Your task to perform on an android device: turn notification dots off Image 0: 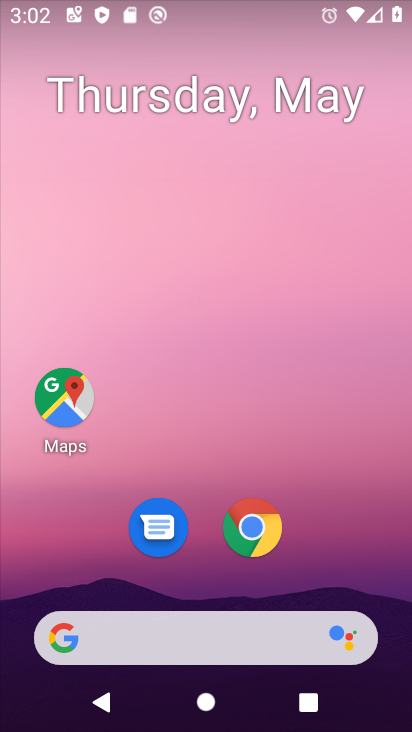
Step 0: drag from (113, 607) to (244, 111)
Your task to perform on an android device: turn notification dots off Image 1: 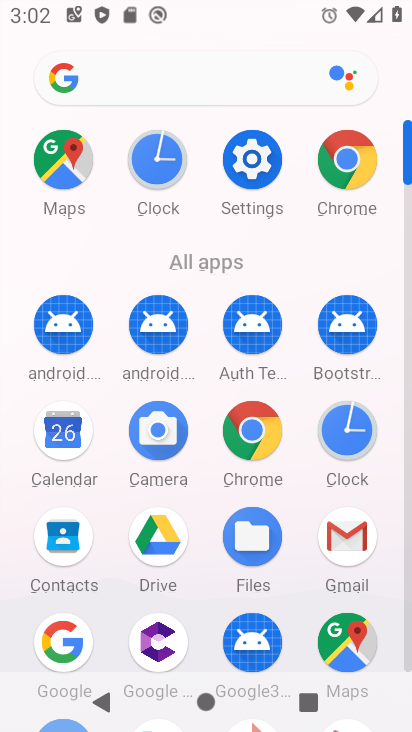
Step 1: drag from (132, 638) to (227, 302)
Your task to perform on an android device: turn notification dots off Image 2: 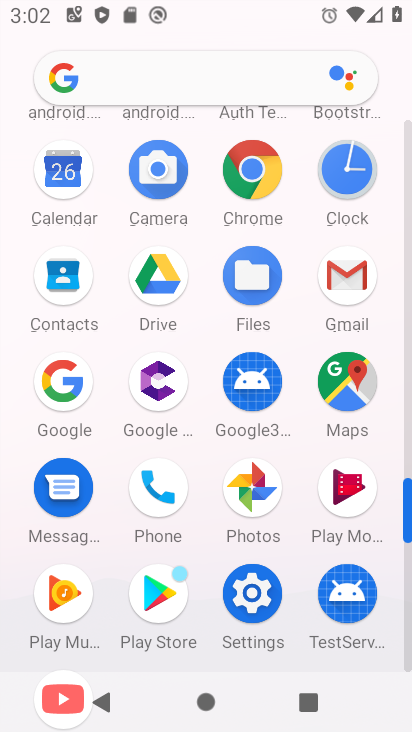
Step 2: click (245, 596)
Your task to perform on an android device: turn notification dots off Image 3: 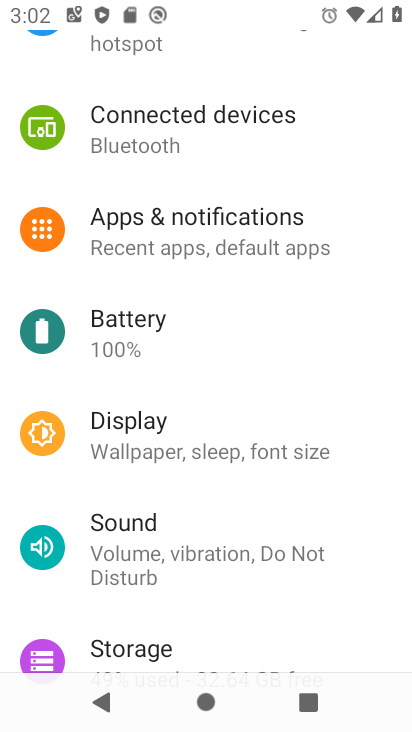
Step 3: drag from (187, 635) to (276, 234)
Your task to perform on an android device: turn notification dots off Image 4: 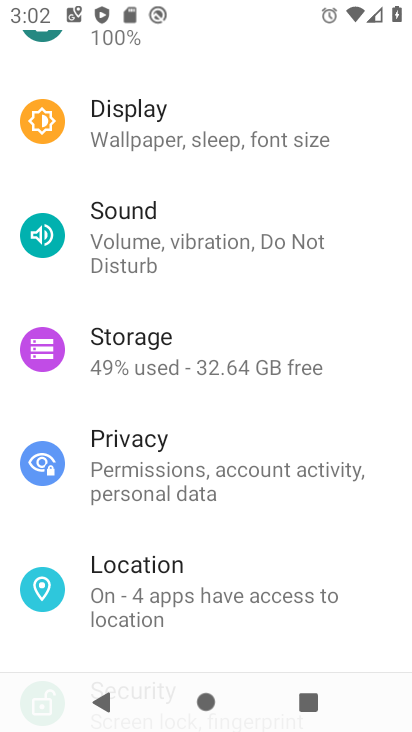
Step 4: drag from (203, 153) to (202, 655)
Your task to perform on an android device: turn notification dots off Image 5: 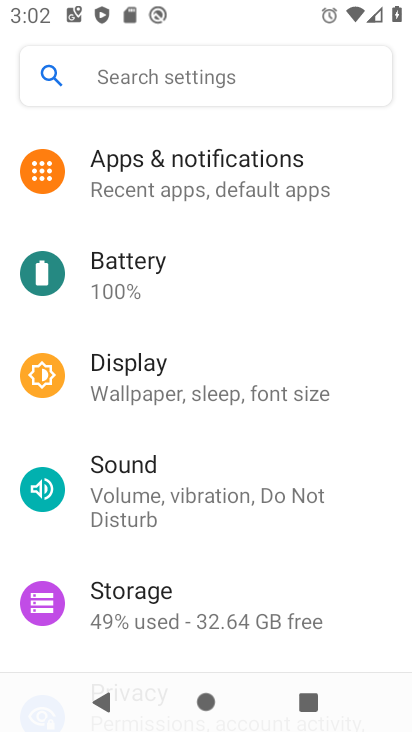
Step 5: click (258, 194)
Your task to perform on an android device: turn notification dots off Image 6: 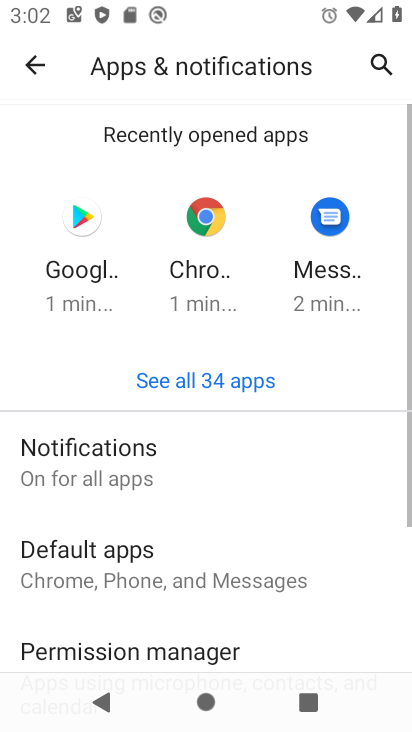
Step 6: click (191, 478)
Your task to perform on an android device: turn notification dots off Image 7: 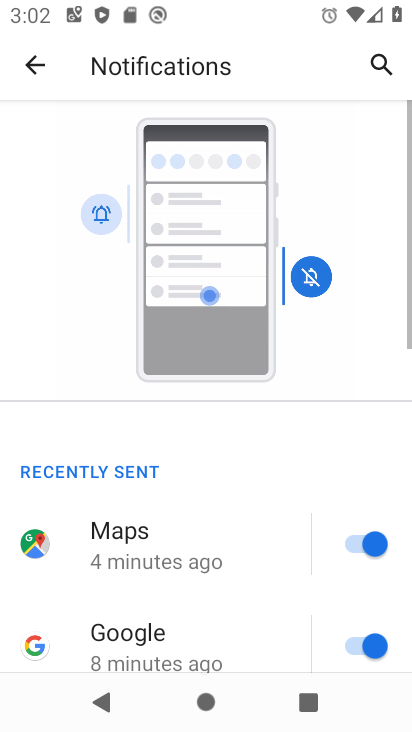
Step 7: drag from (188, 413) to (318, 97)
Your task to perform on an android device: turn notification dots off Image 8: 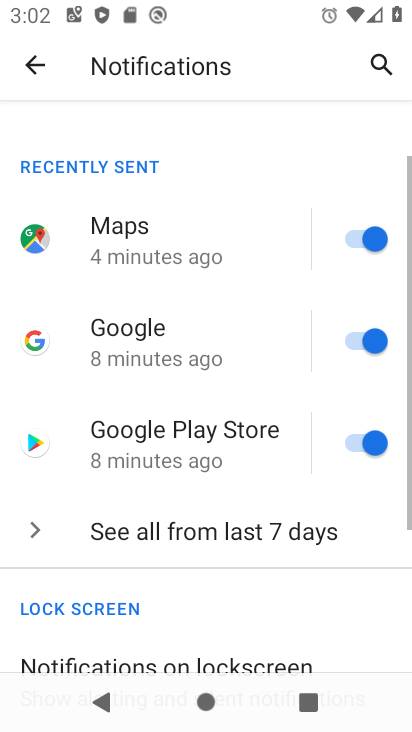
Step 8: drag from (171, 598) to (277, 203)
Your task to perform on an android device: turn notification dots off Image 9: 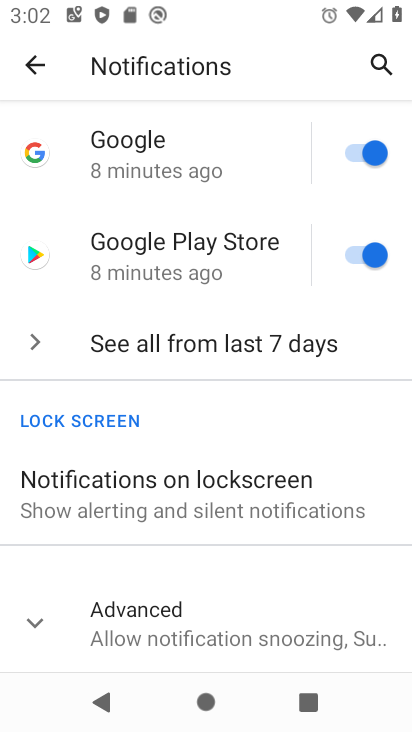
Step 9: click (189, 626)
Your task to perform on an android device: turn notification dots off Image 10: 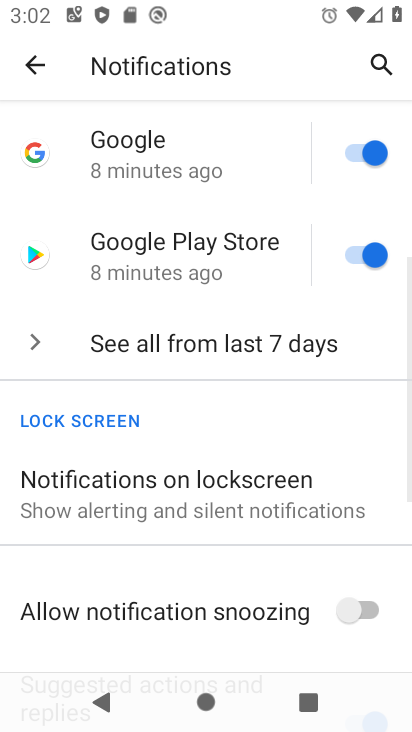
Step 10: drag from (110, 610) to (268, 136)
Your task to perform on an android device: turn notification dots off Image 11: 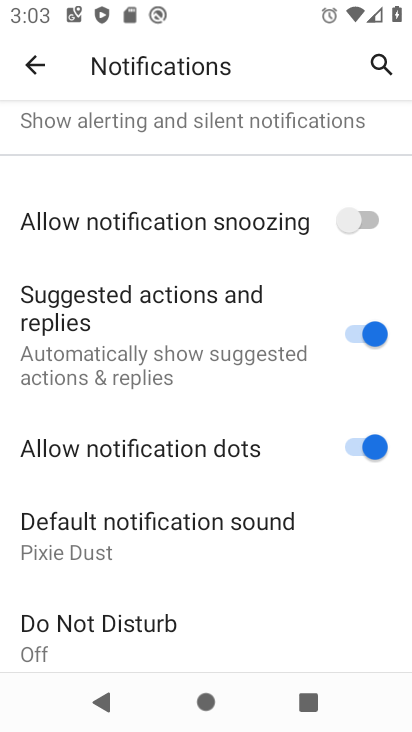
Step 11: click (340, 447)
Your task to perform on an android device: turn notification dots off Image 12: 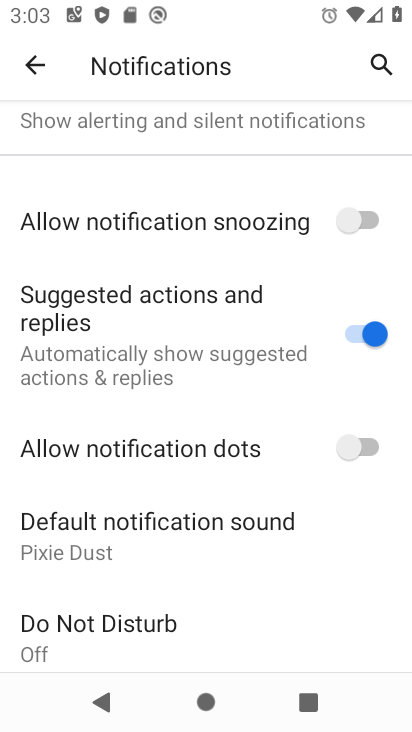
Step 12: task complete